Your task to perform on an android device: Open sound settings Image 0: 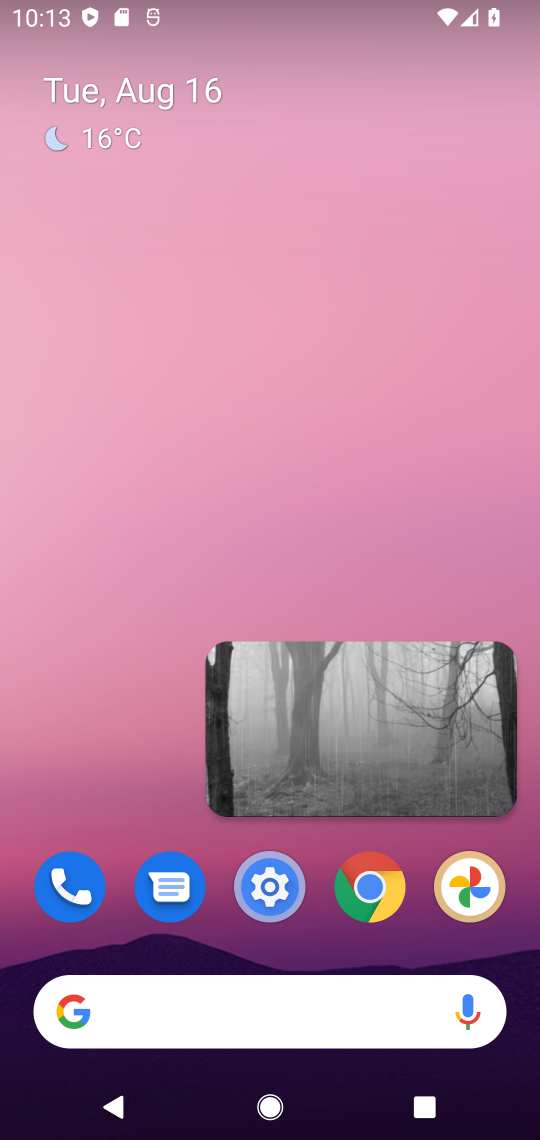
Step 0: press home button
Your task to perform on an android device: Open sound settings Image 1: 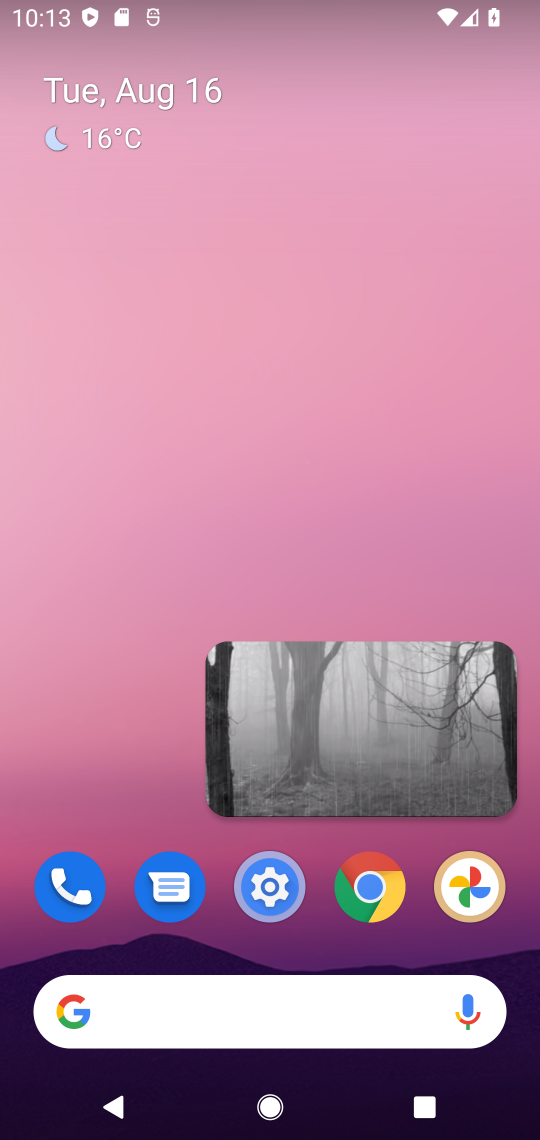
Step 1: drag from (104, 805) to (125, 219)
Your task to perform on an android device: Open sound settings Image 2: 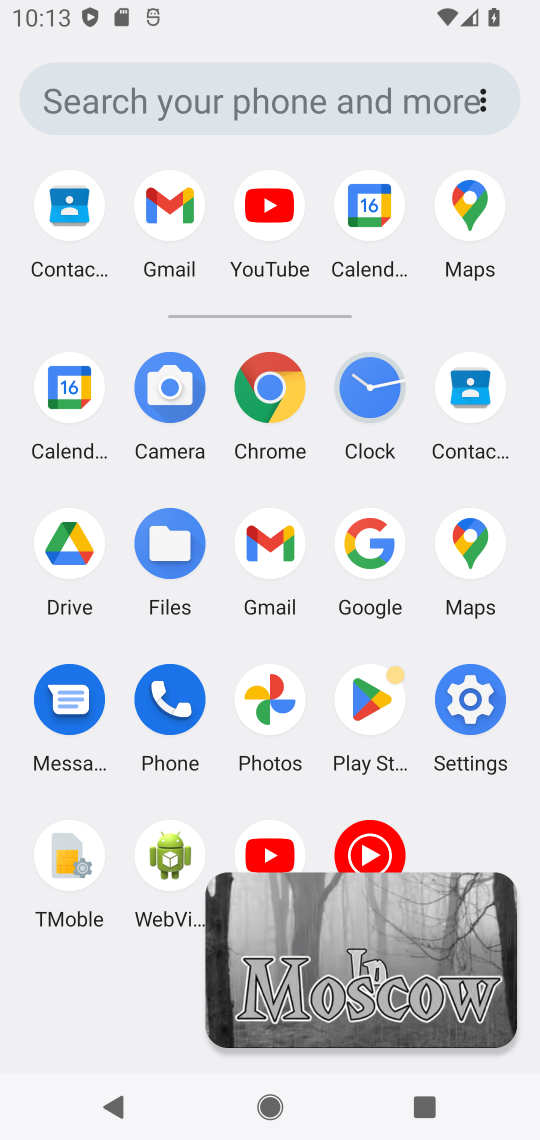
Step 2: click (471, 703)
Your task to perform on an android device: Open sound settings Image 3: 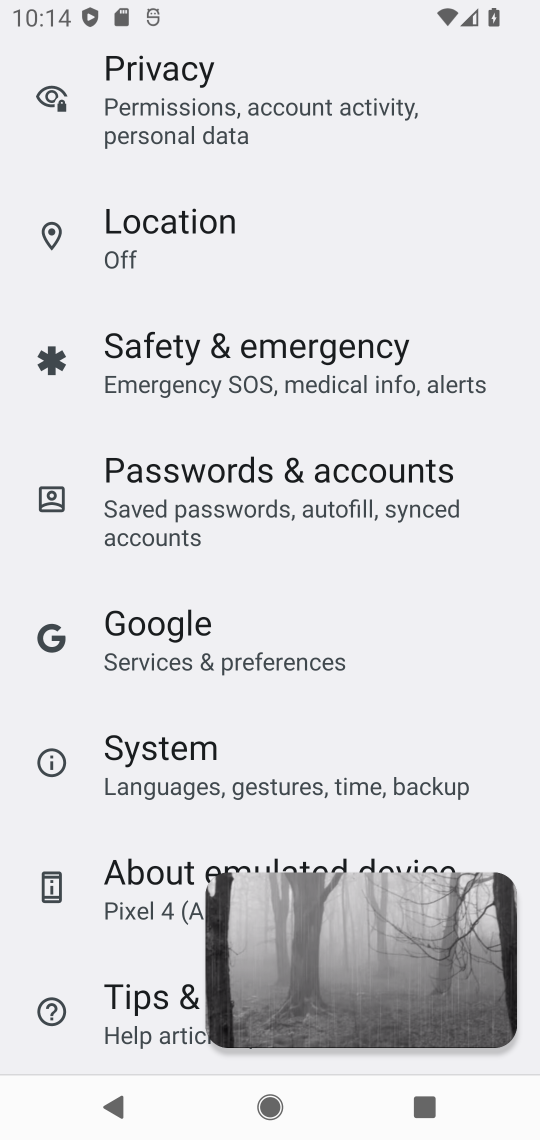
Step 3: drag from (476, 736) to (500, 591)
Your task to perform on an android device: Open sound settings Image 4: 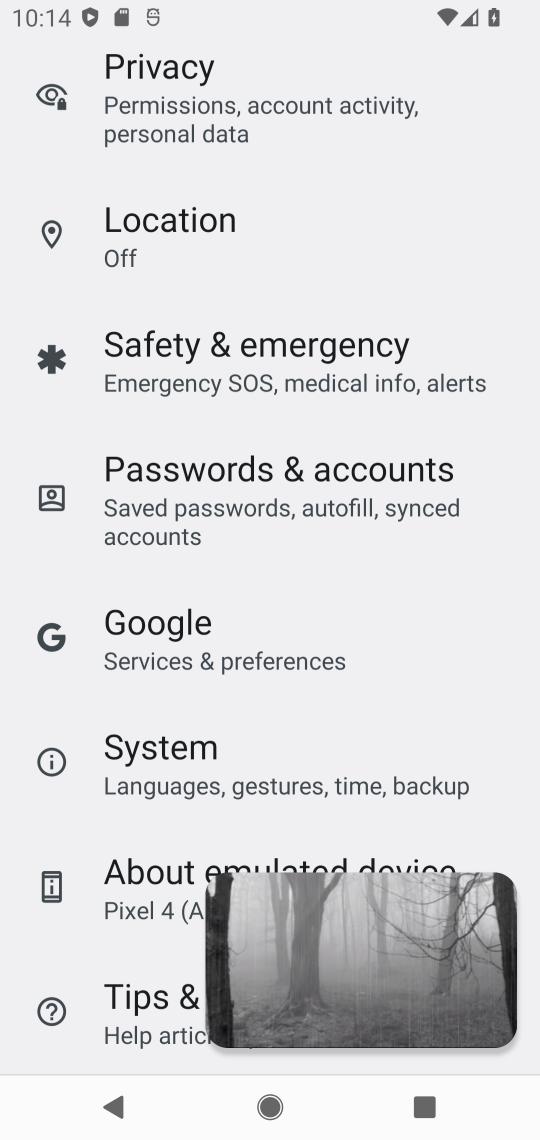
Step 4: drag from (479, 570) to (478, 666)
Your task to perform on an android device: Open sound settings Image 5: 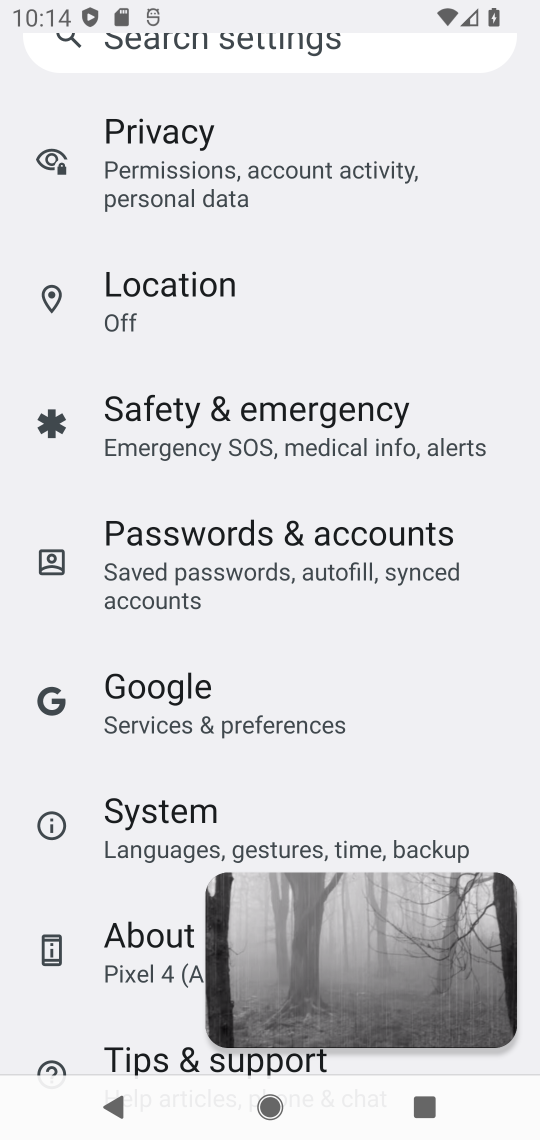
Step 5: drag from (493, 501) to (496, 643)
Your task to perform on an android device: Open sound settings Image 6: 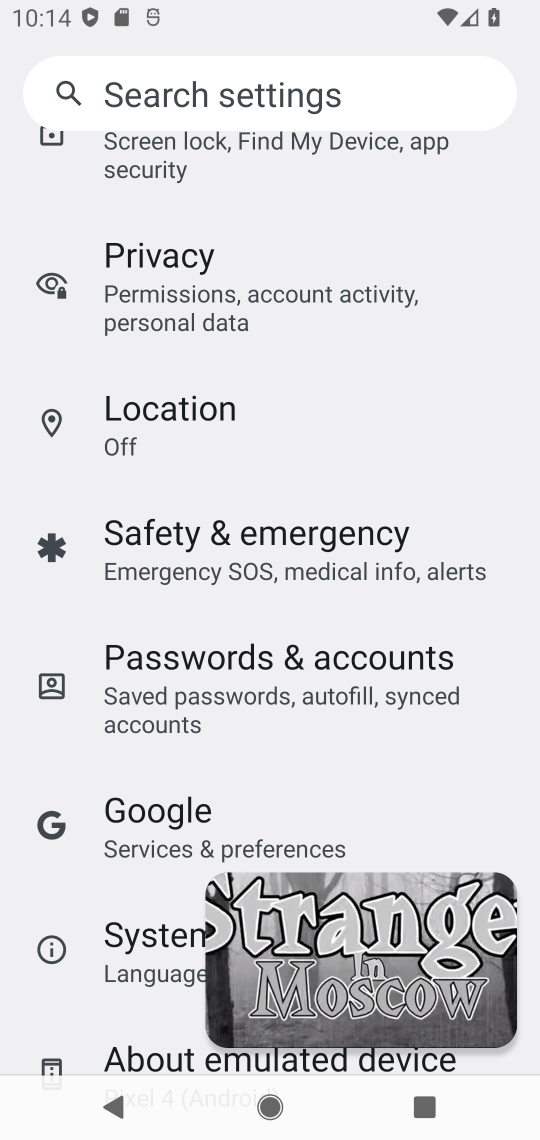
Step 6: drag from (503, 515) to (504, 612)
Your task to perform on an android device: Open sound settings Image 7: 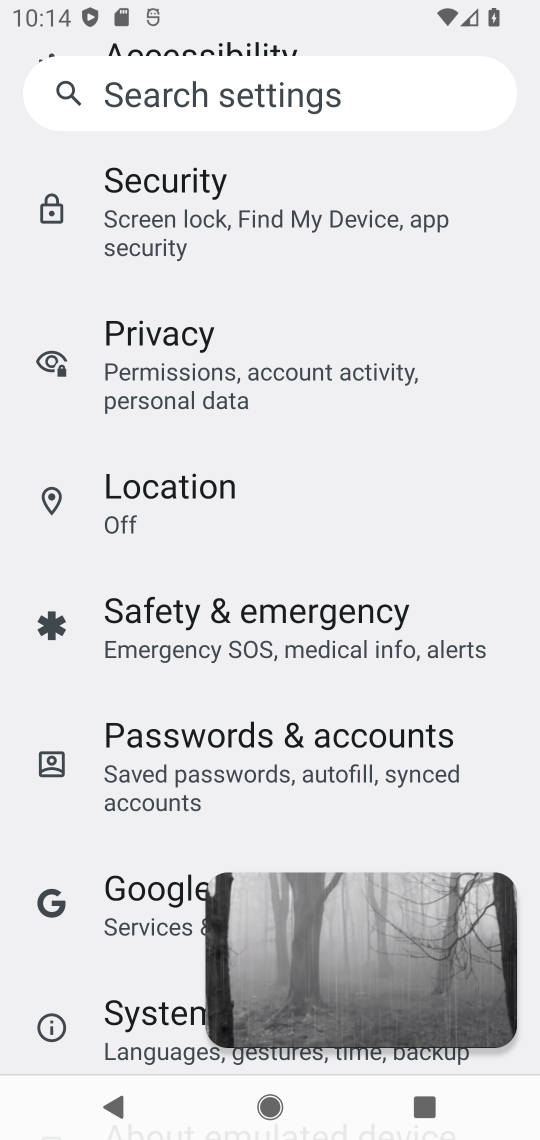
Step 7: drag from (479, 423) to (495, 582)
Your task to perform on an android device: Open sound settings Image 8: 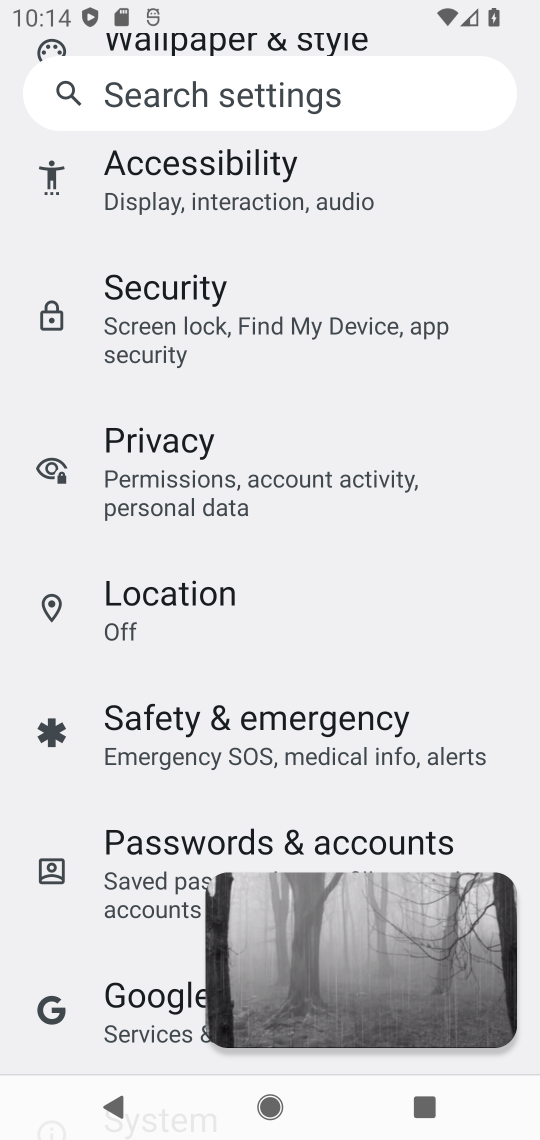
Step 8: drag from (501, 292) to (507, 515)
Your task to perform on an android device: Open sound settings Image 9: 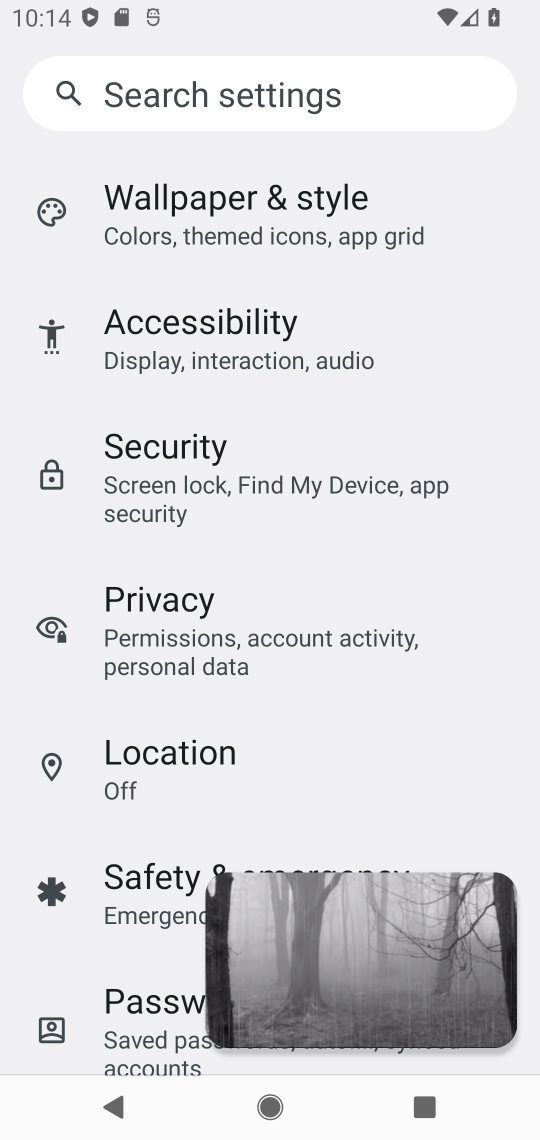
Step 9: drag from (480, 351) to (478, 560)
Your task to perform on an android device: Open sound settings Image 10: 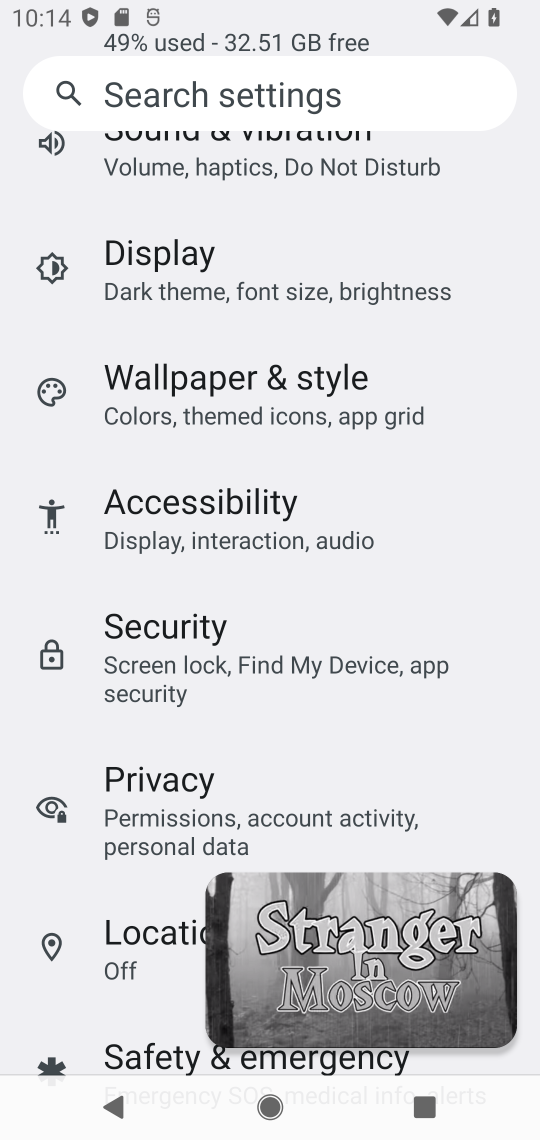
Step 10: drag from (496, 315) to (516, 518)
Your task to perform on an android device: Open sound settings Image 11: 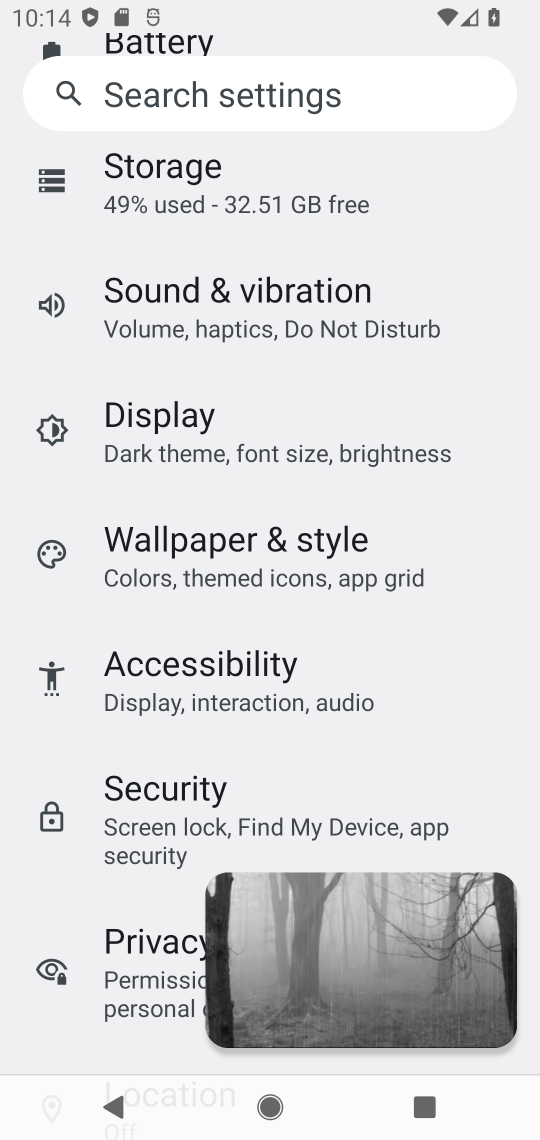
Step 11: drag from (497, 257) to (497, 512)
Your task to perform on an android device: Open sound settings Image 12: 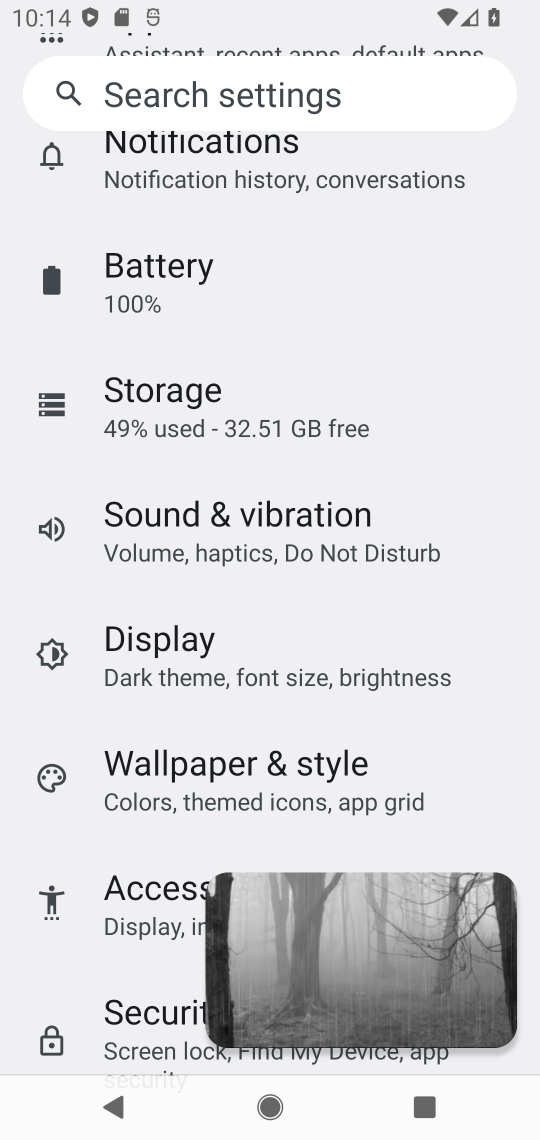
Step 12: click (418, 541)
Your task to perform on an android device: Open sound settings Image 13: 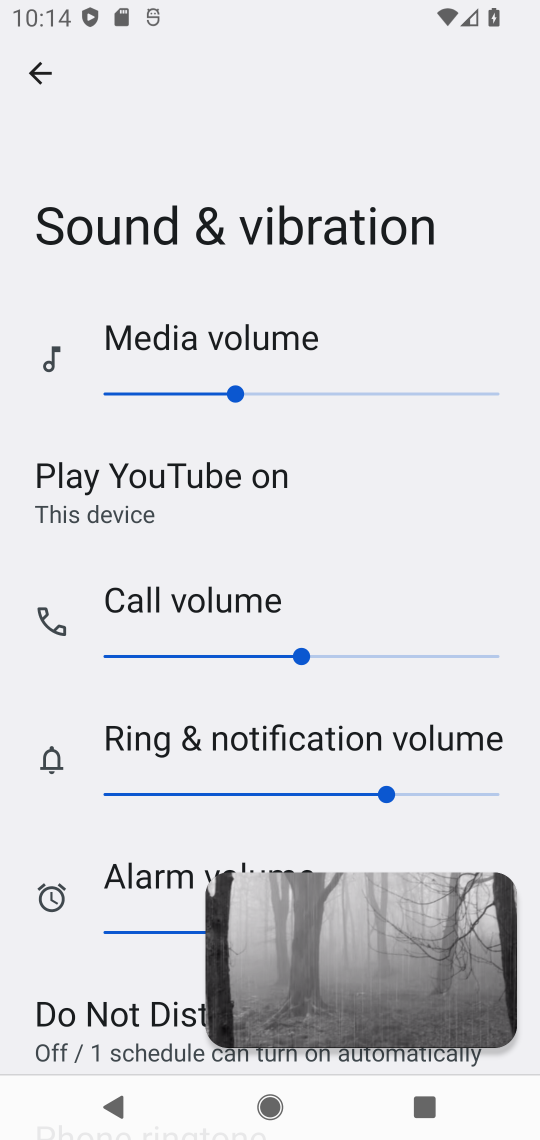
Step 13: task complete